Your task to perform on an android device: Open Yahoo.com Image 0: 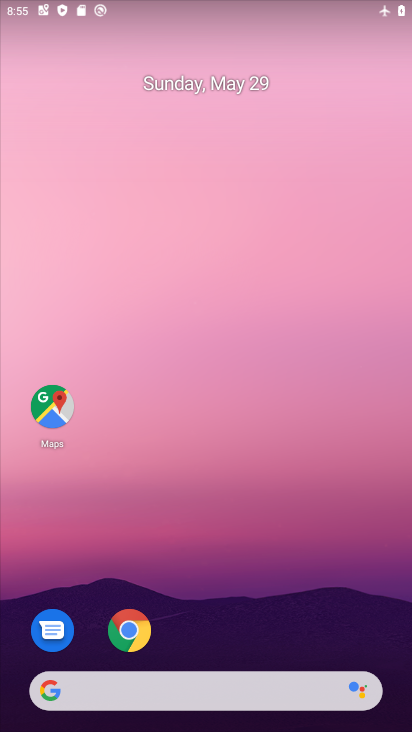
Step 0: click (146, 635)
Your task to perform on an android device: Open Yahoo.com Image 1: 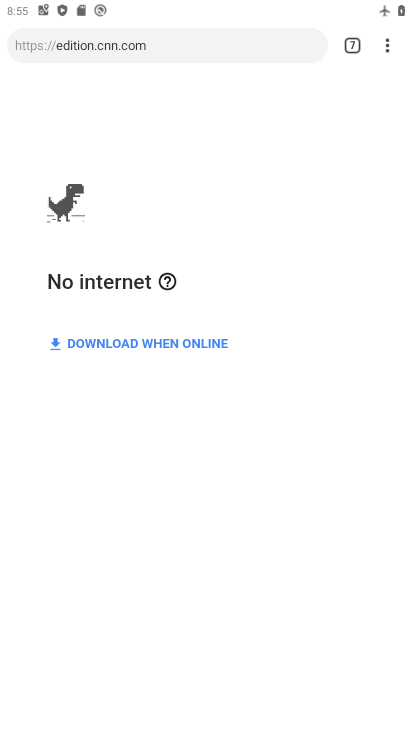
Step 1: click (348, 43)
Your task to perform on an android device: Open Yahoo.com Image 2: 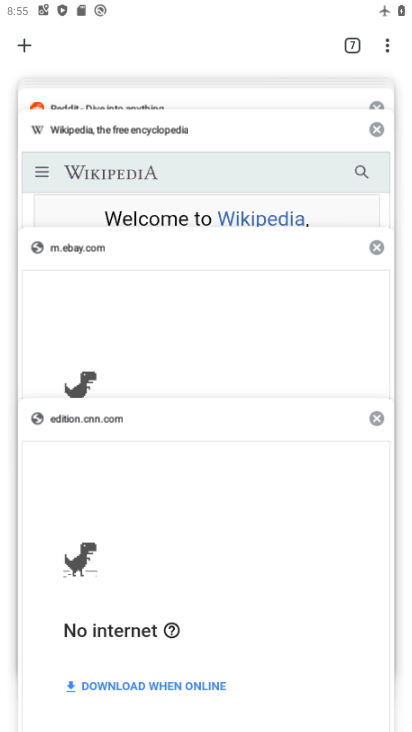
Step 2: drag from (226, 125) to (196, 475)
Your task to perform on an android device: Open Yahoo.com Image 3: 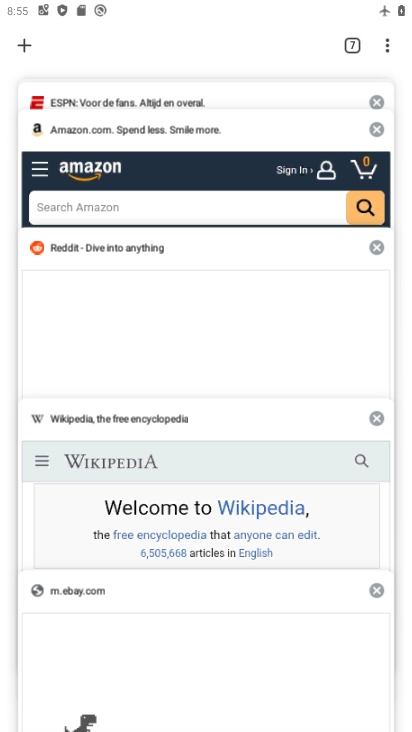
Step 3: drag from (153, 98) to (148, 418)
Your task to perform on an android device: Open Yahoo.com Image 4: 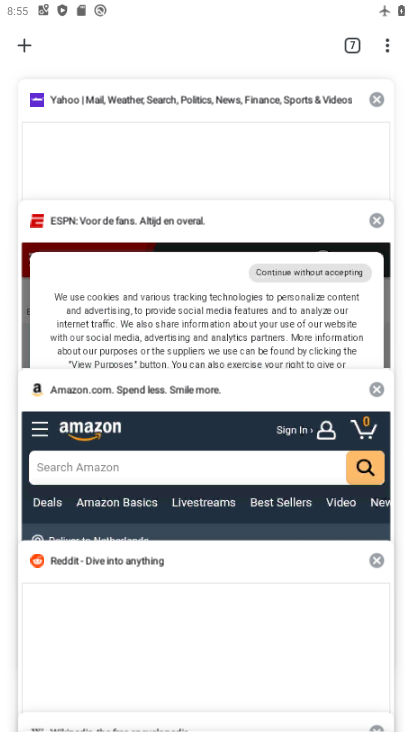
Step 4: click (140, 122)
Your task to perform on an android device: Open Yahoo.com Image 5: 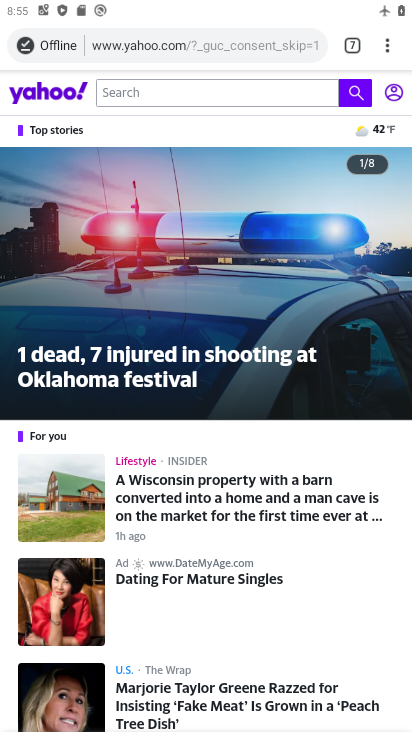
Step 5: task complete